Your task to perform on an android device: Open Google Chrome and open the bookmarks view Image 0: 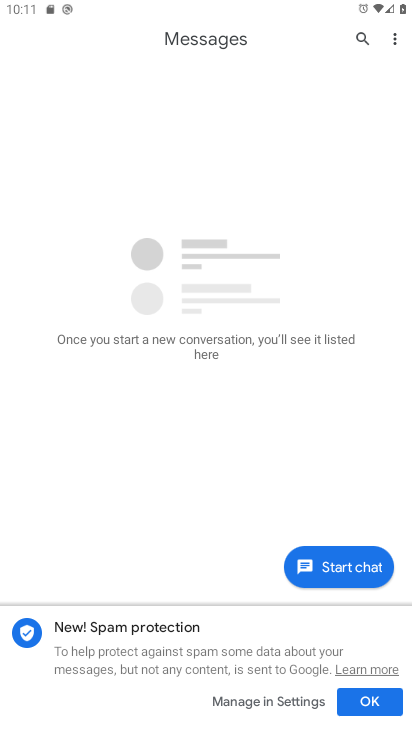
Step 0: press home button
Your task to perform on an android device: Open Google Chrome and open the bookmarks view Image 1: 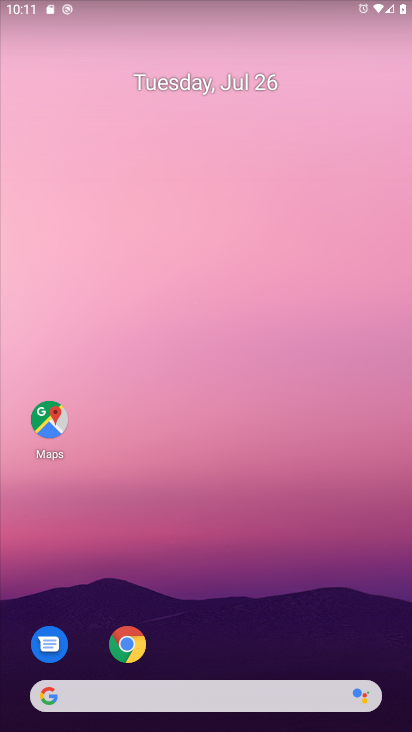
Step 1: click (132, 646)
Your task to perform on an android device: Open Google Chrome and open the bookmarks view Image 2: 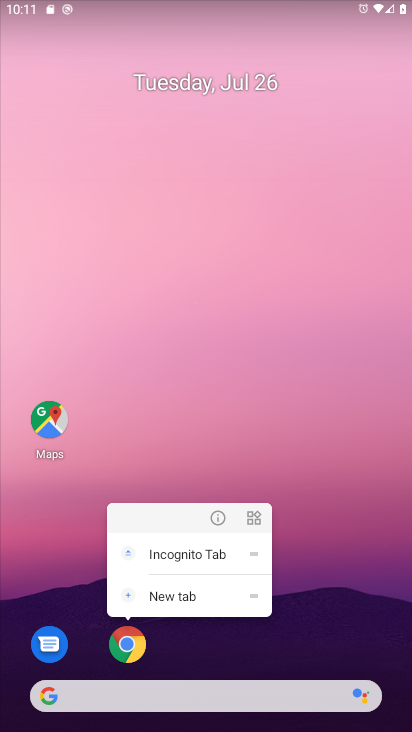
Step 2: click (120, 641)
Your task to perform on an android device: Open Google Chrome and open the bookmarks view Image 3: 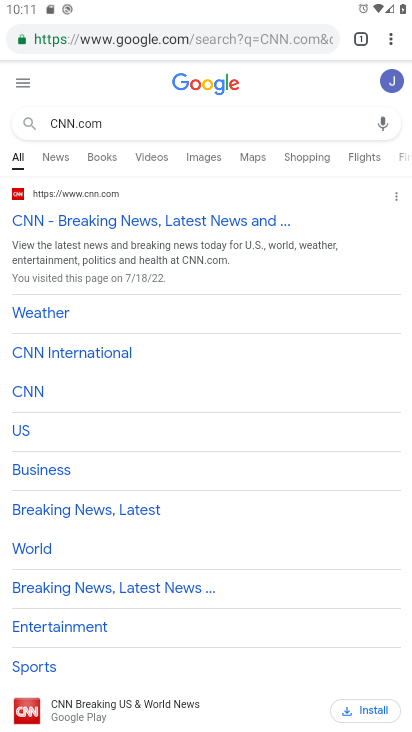
Step 3: click (393, 36)
Your task to perform on an android device: Open Google Chrome and open the bookmarks view Image 4: 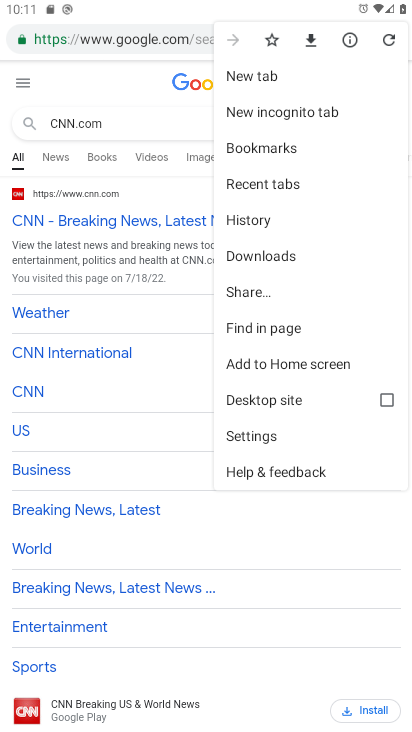
Step 4: click (264, 145)
Your task to perform on an android device: Open Google Chrome and open the bookmarks view Image 5: 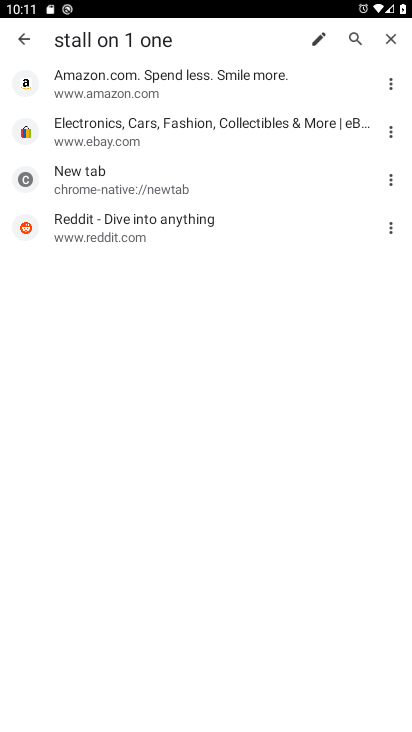
Step 5: task complete